Your task to perform on an android device: empty trash in google photos Image 0: 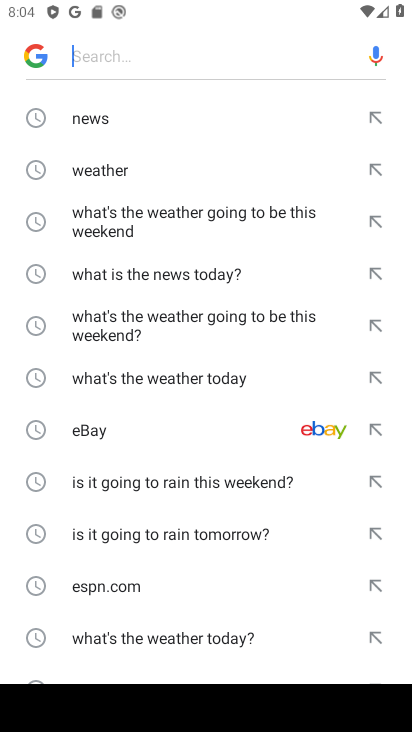
Step 0: press home button
Your task to perform on an android device: empty trash in google photos Image 1: 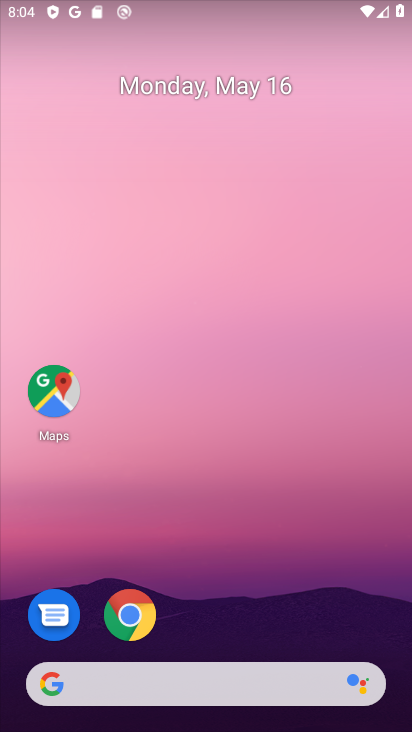
Step 1: drag from (57, 525) to (313, 228)
Your task to perform on an android device: empty trash in google photos Image 2: 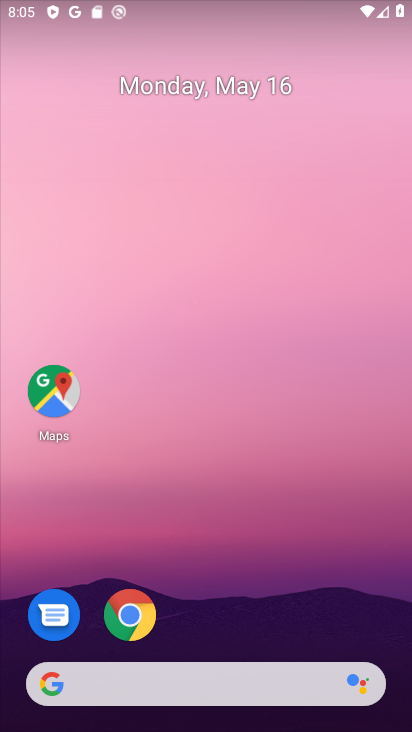
Step 2: drag from (38, 524) to (251, 225)
Your task to perform on an android device: empty trash in google photos Image 3: 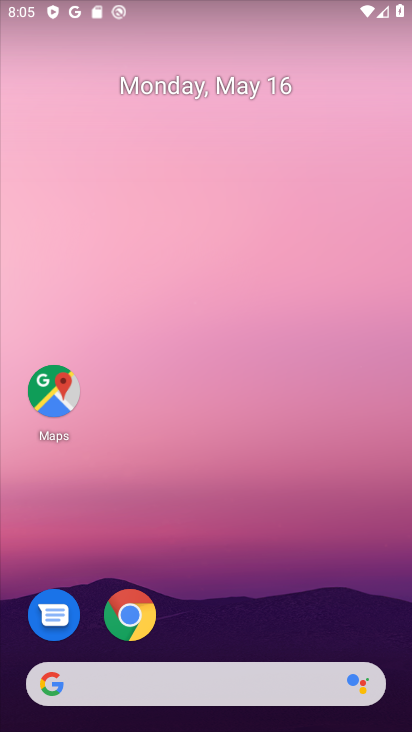
Step 3: drag from (52, 546) to (267, 198)
Your task to perform on an android device: empty trash in google photos Image 4: 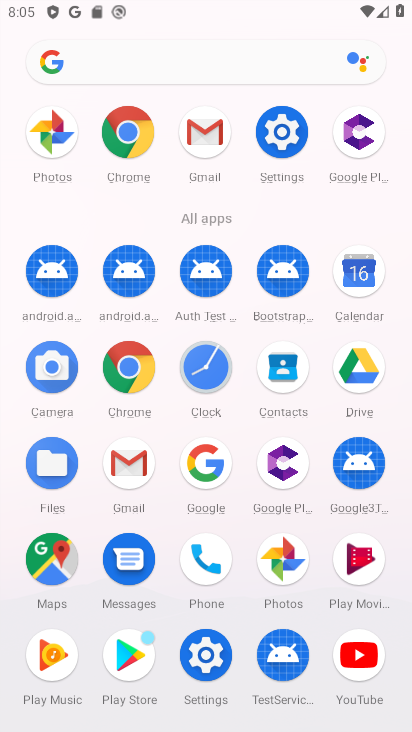
Step 4: click (274, 549)
Your task to perform on an android device: empty trash in google photos Image 5: 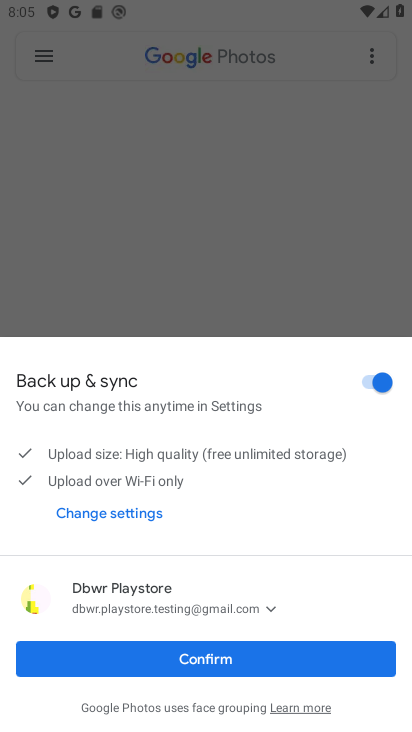
Step 5: click (195, 655)
Your task to perform on an android device: empty trash in google photos Image 6: 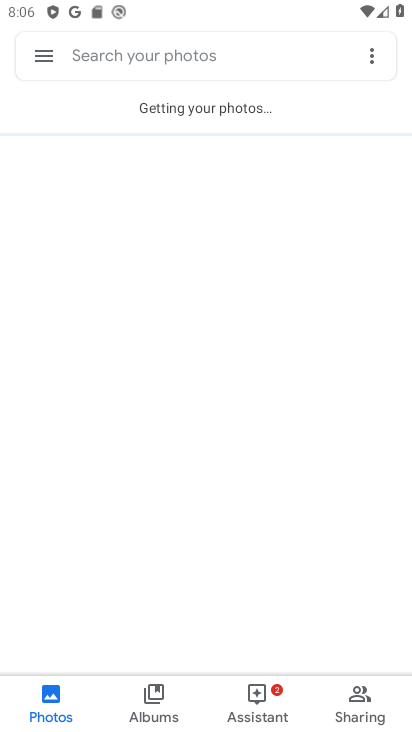
Step 6: click (40, 51)
Your task to perform on an android device: empty trash in google photos Image 7: 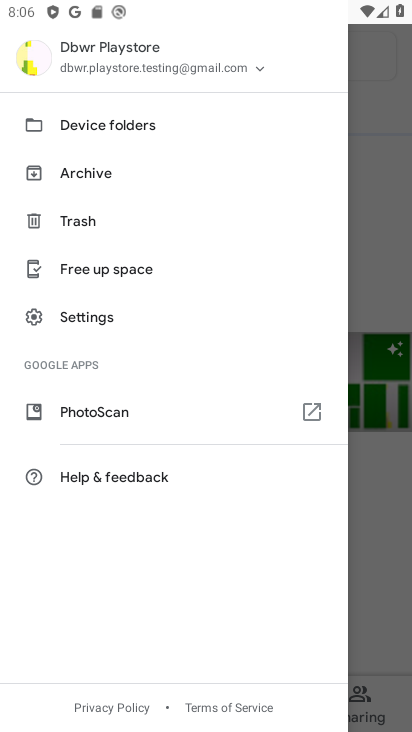
Step 7: click (120, 211)
Your task to perform on an android device: empty trash in google photos Image 8: 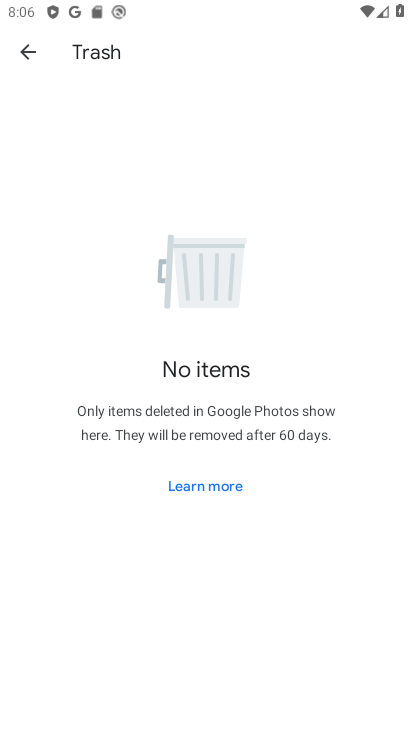
Step 8: task complete